Your task to perform on an android device: star an email in the gmail app Image 0: 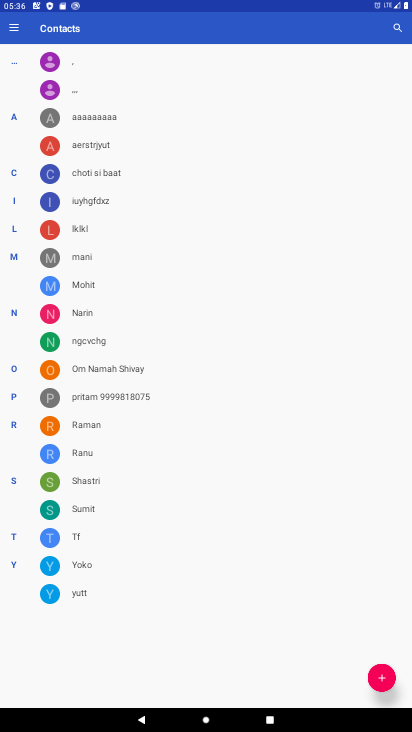
Step 0: press home button
Your task to perform on an android device: star an email in the gmail app Image 1: 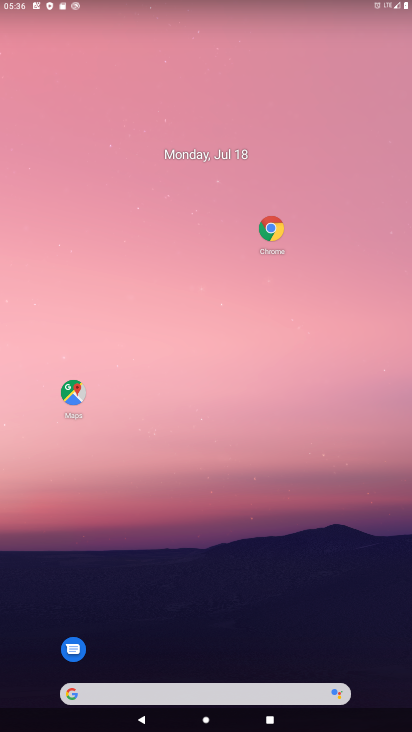
Step 1: drag from (180, 643) to (187, 208)
Your task to perform on an android device: star an email in the gmail app Image 2: 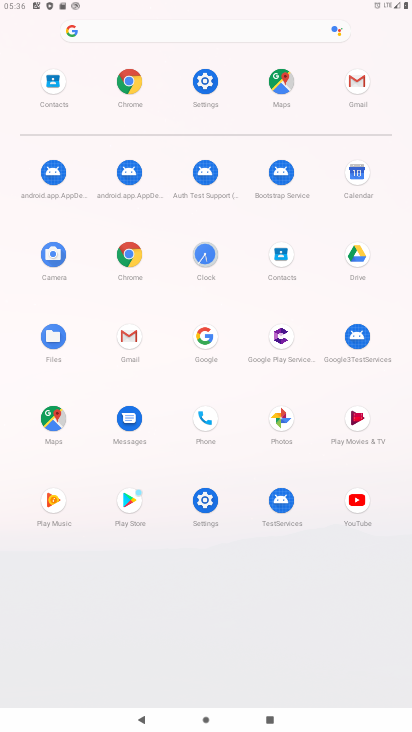
Step 2: click (359, 76)
Your task to perform on an android device: star an email in the gmail app Image 3: 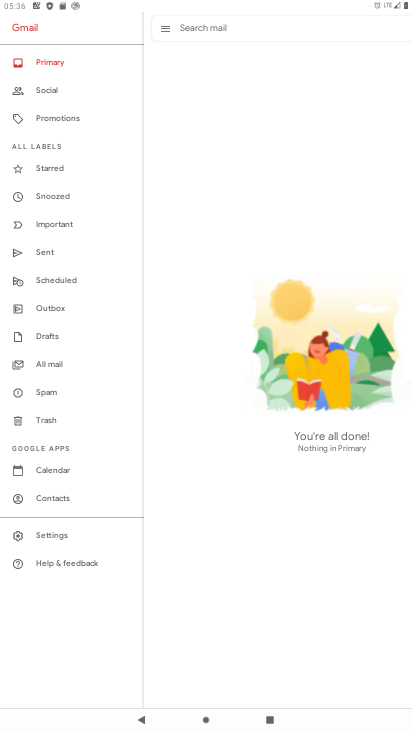
Step 3: task complete